Your task to perform on an android device: turn on the 24-hour format for clock Image 0: 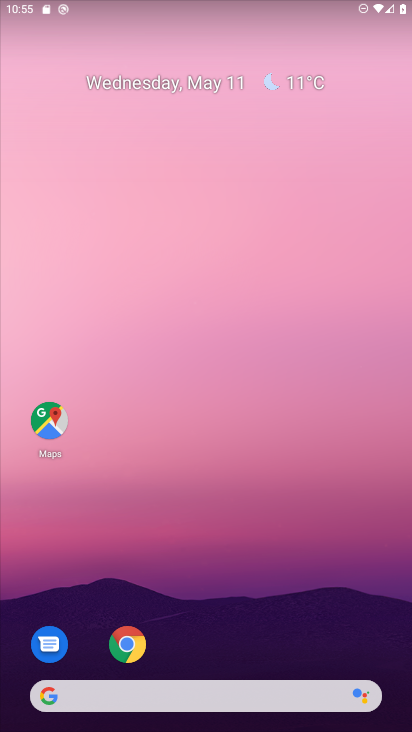
Step 0: drag from (365, 633) to (304, 15)
Your task to perform on an android device: turn on the 24-hour format for clock Image 1: 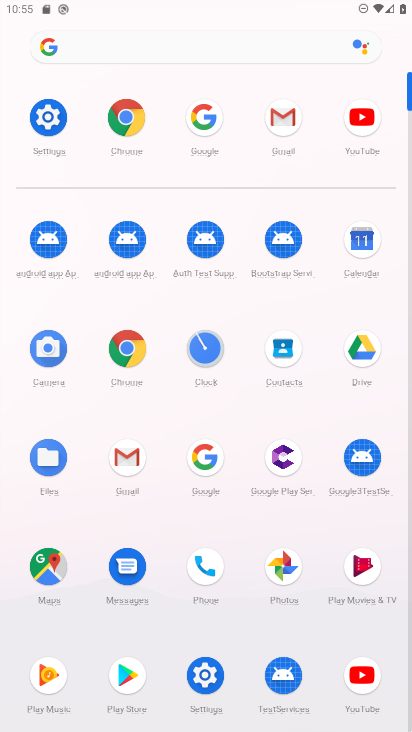
Step 1: click (201, 356)
Your task to perform on an android device: turn on the 24-hour format for clock Image 2: 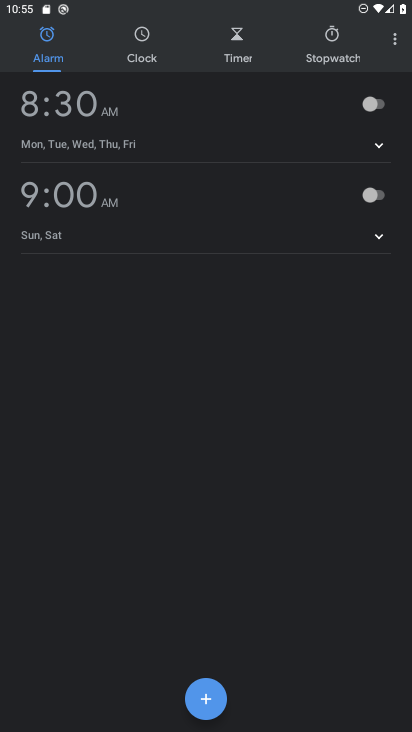
Step 2: click (396, 43)
Your task to perform on an android device: turn on the 24-hour format for clock Image 3: 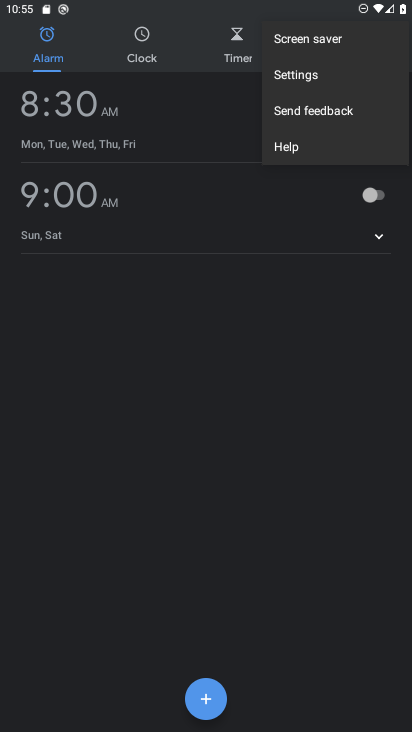
Step 3: click (301, 76)
Your task to perform on an android device: turn on the 24-hour format for clock Image 4: 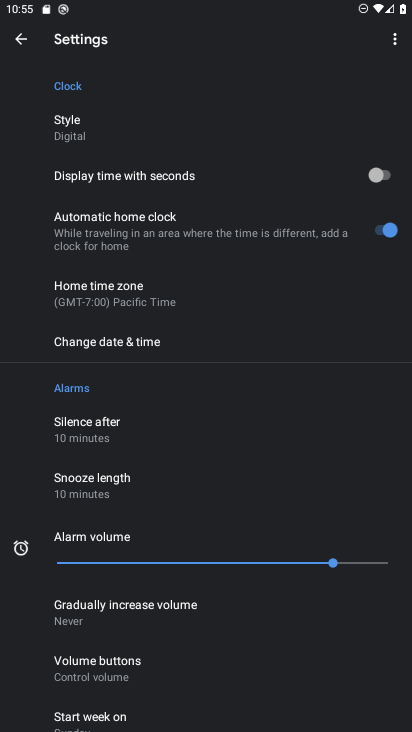
Step 4: click (99, 339)
Your task to perform on an android device: turn on the 24-hour format for clock Image 5: 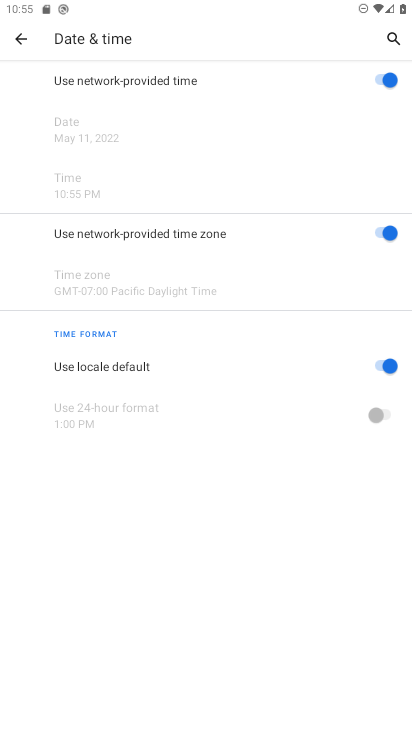
Step 5: click (393, 366)
Your task to perform on an android device: turn on the 24-hour format for clock Image 6: 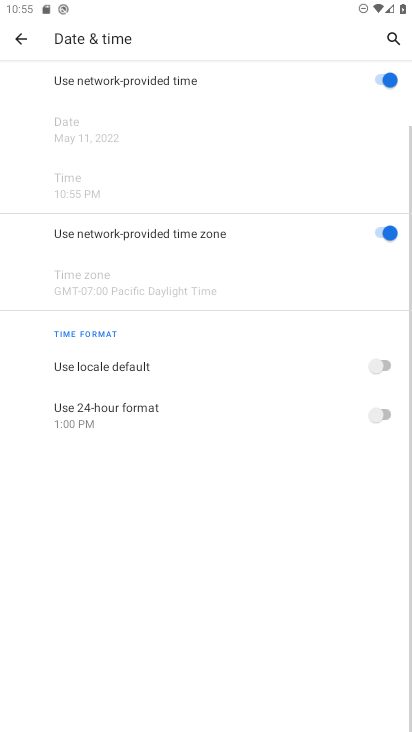
Step 6: click (387, 412)
Your task to perform on an android device: turn on the 24-hour format for clock Image 7: 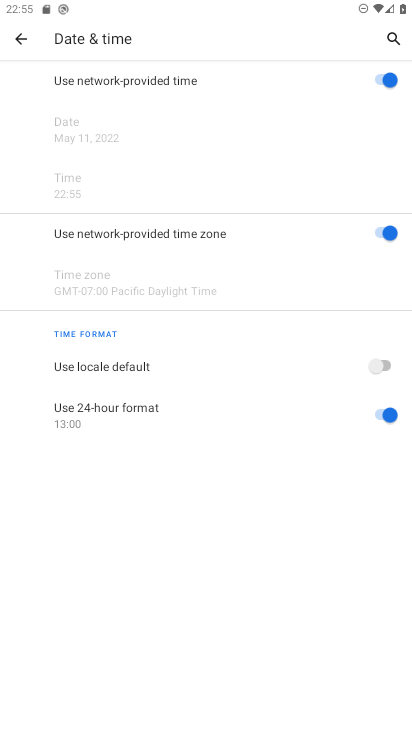
Step 7: task complete